Your task to perform on an android device: stop showing notifications on the lock screen Image 0: 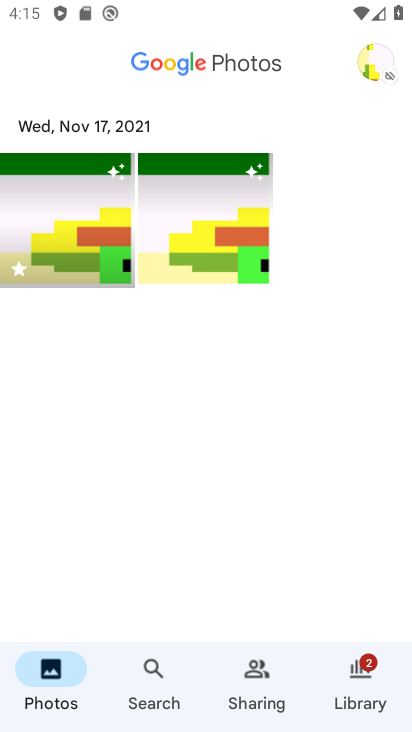
Step 0: press home button
Your task to perform on an android device: stop showing notifications on the lock screen Image 1: 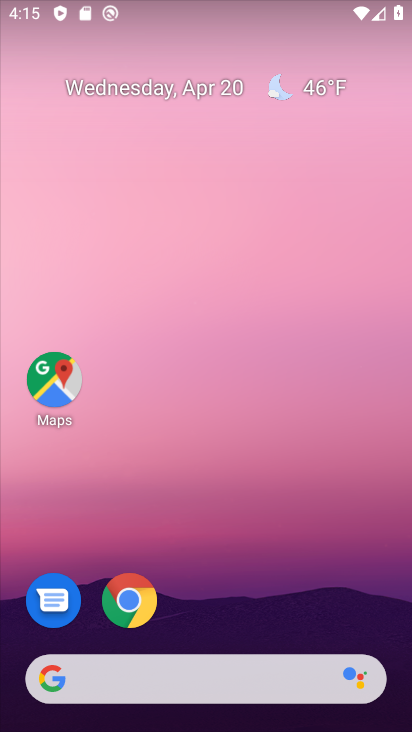
Step 1: drag from (240, 474) to (245, 48)
Your task to perform on an android device: stop showing notifications on the lock screen Image 2: 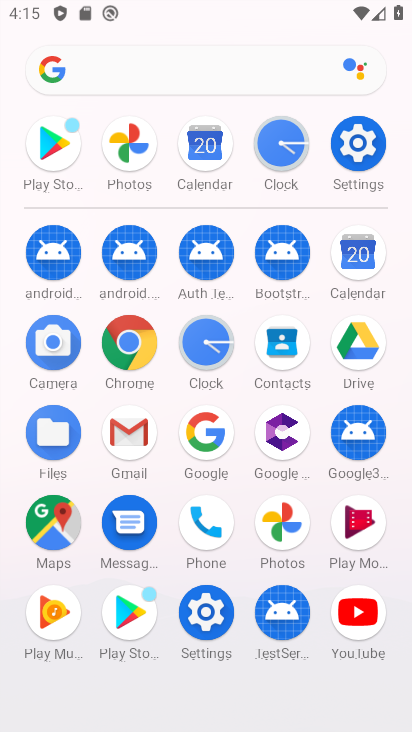
Step 2: click (219, 618)
Your task to perform on an android device: stop showing notifications on the lock screen Image 3: 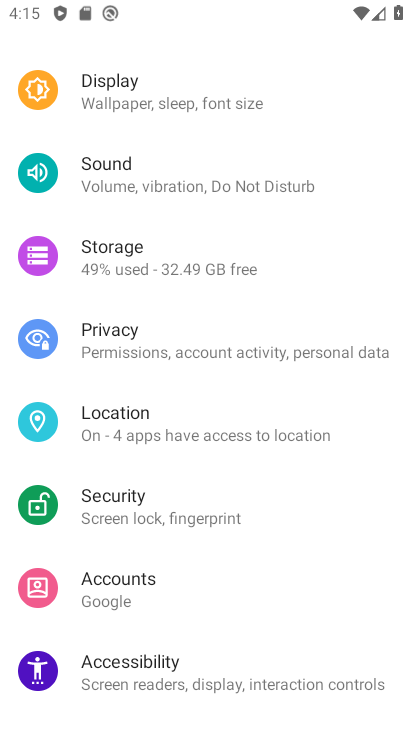
Step 3: drag from (224, 262) to (170, 688)
Your task to perform on an android device: stop showing notifications on the lock screen Image 4: 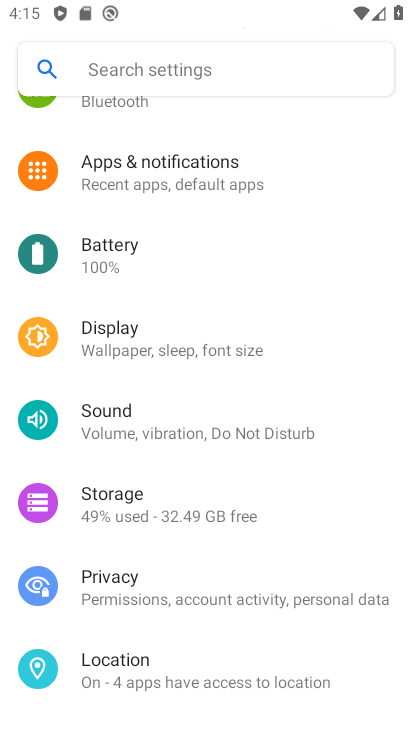
Step 4: click (194, 182)
Your task to perform on an android device: stop showing notifications on the lock screen Image 5: 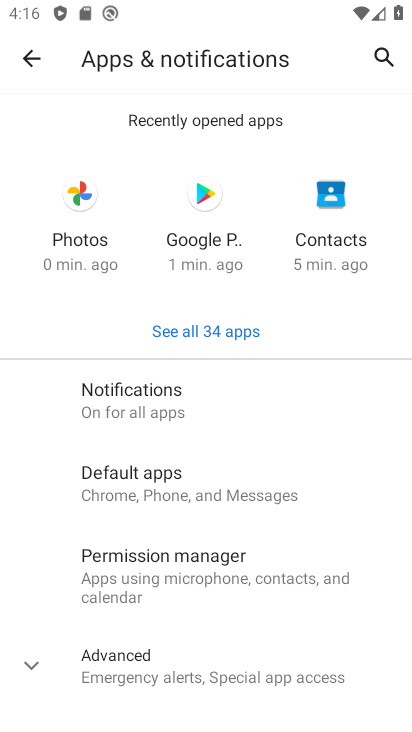
Step 5: click (192, 387)
Your task to perform on an android device: stop showing notifications on the lock screen Image 6: 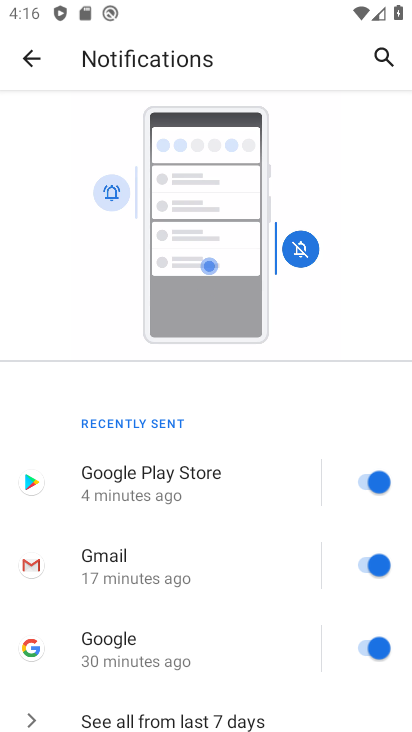
Step 6: drag from (223, 618) to (244, 194)
Your task to perform on an android device: stop showing notifications on the lock screen Image 7: 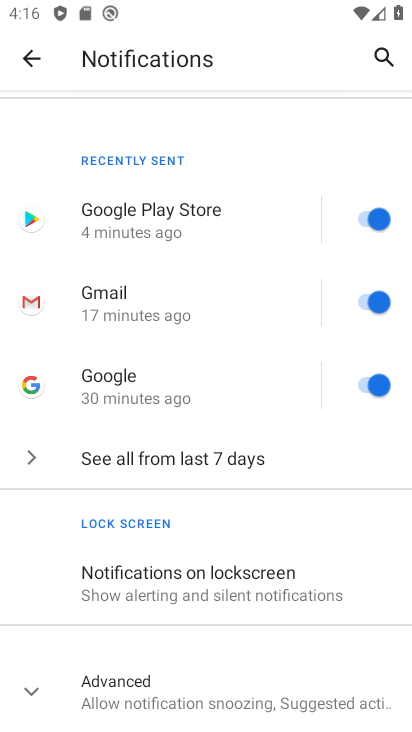
Step 7: click (233, 579)
Your task to perform on an android device: stop showing notifications on the lock screen Image 8: 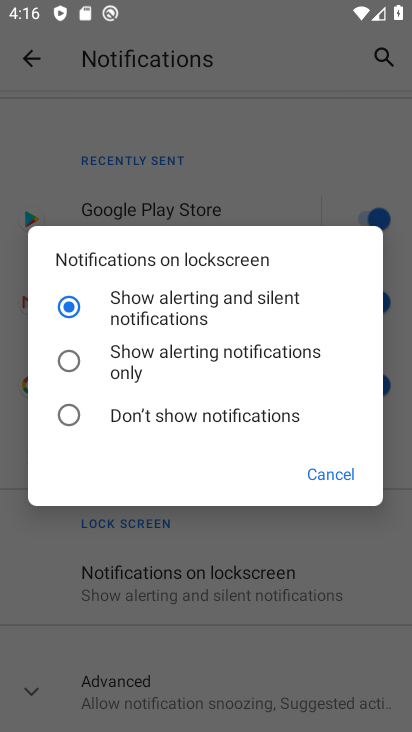
Step 8: click (200, 421)
Your task to perform on an android device: stop showing notifications on the lock screen Image 9: 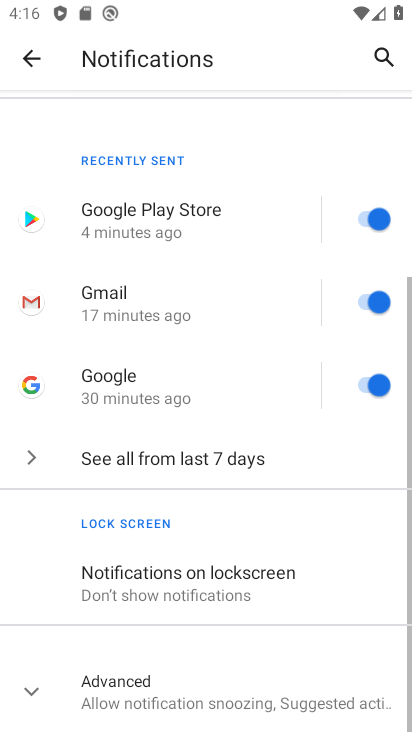
Step 9: task complete